Your task to perform on an android device: toggle sleep mode Image 0: 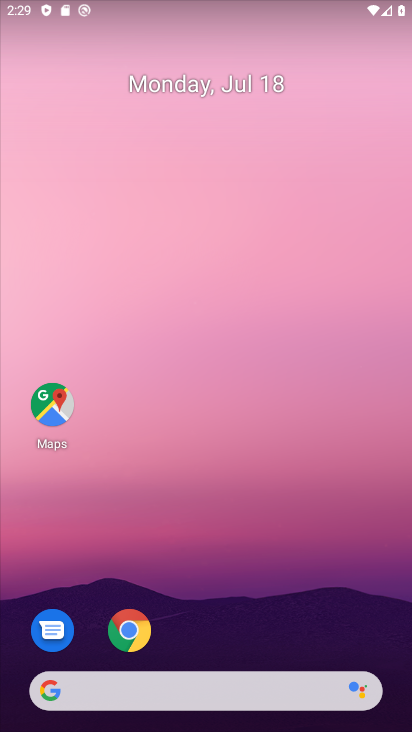
Step 0: drag from (259, 463) to (225, 102)
Your task to perform on an android device: toggle sleep mode Image 1: 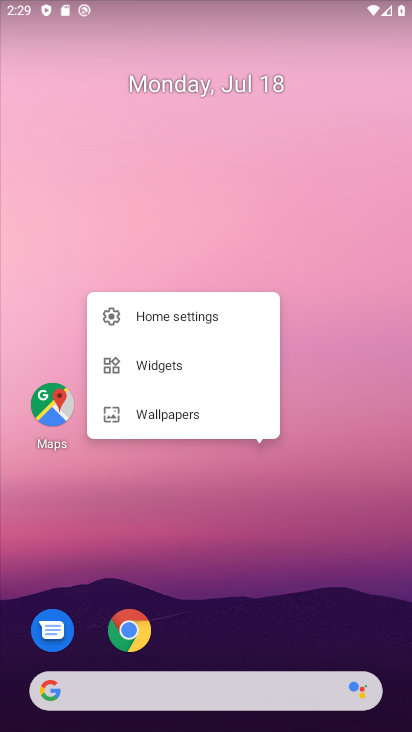
Step 1: click (312, 578)
Your task to perform on an android device: toggle sleep mode Image 2: 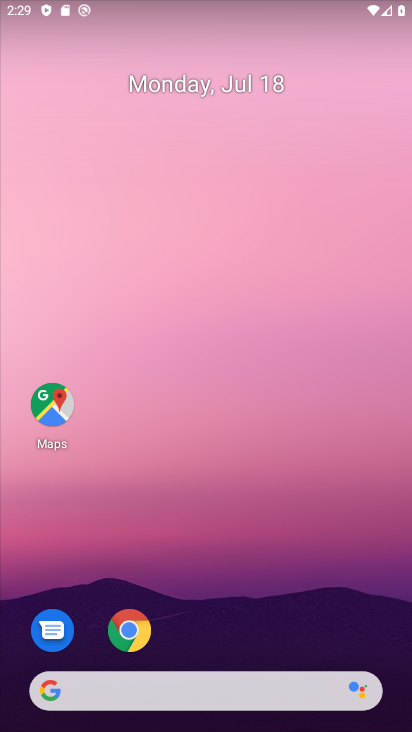
Step 2: drag from (192, 212) to (187, 53)
Your task to perform on an android device: toggle sleep mode Image 3: 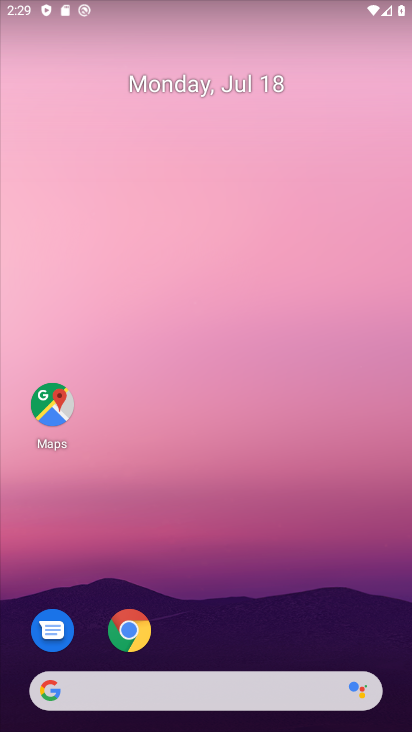
Step 3: drag from (301, 654) to (180, 59)
Your task to perform on an android device: toggle sleep mode Image 4: 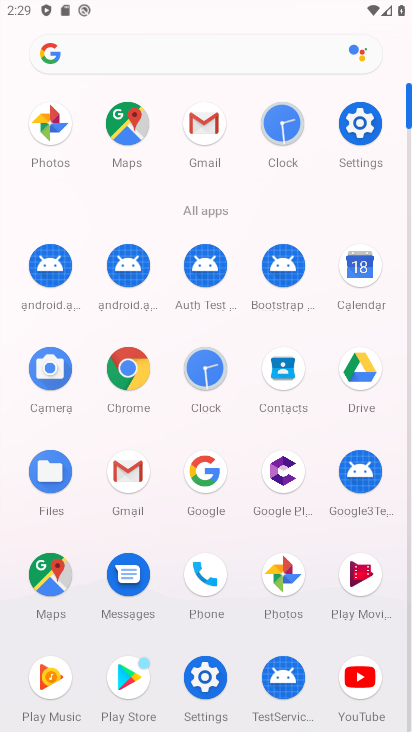
Step 4: click (362, 122)
Your task to perform on an android device: toggle sleep mode Image 5: 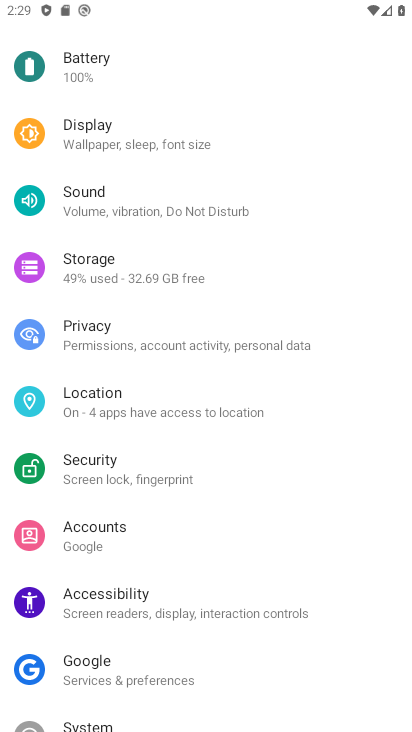
Step 5: click (93, 144)
Your task to perform on an android device: toggle sleep mode Image 6: 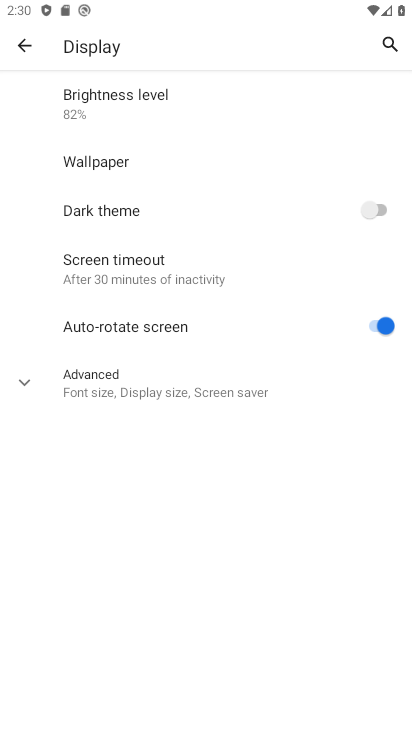
Step 6: click (131, 271)
Your task to perform on an android device: toggle sleep mode Image 7: 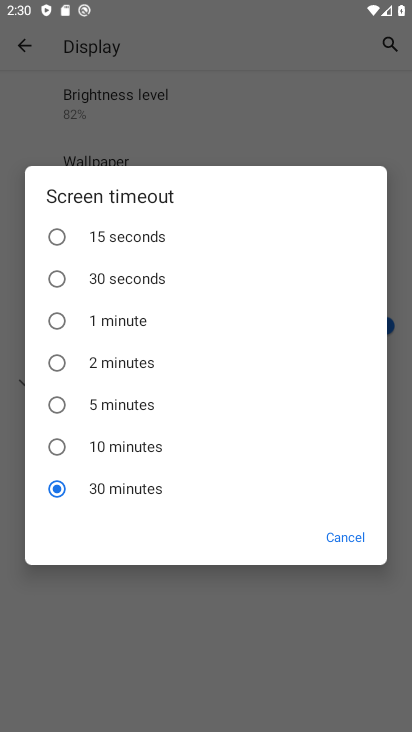
Step 7: click (117, 442)
Your task to perform on an android device: toggle sleep mode Image 8: 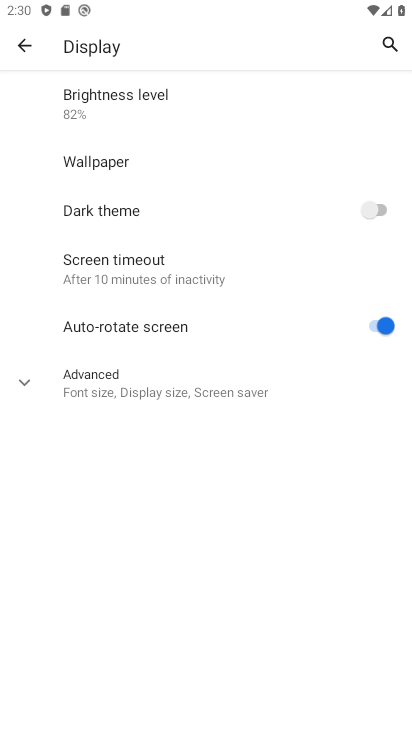
Step 8: task complete